Your task to perform on an android device: toggle airplane mode Image 0: 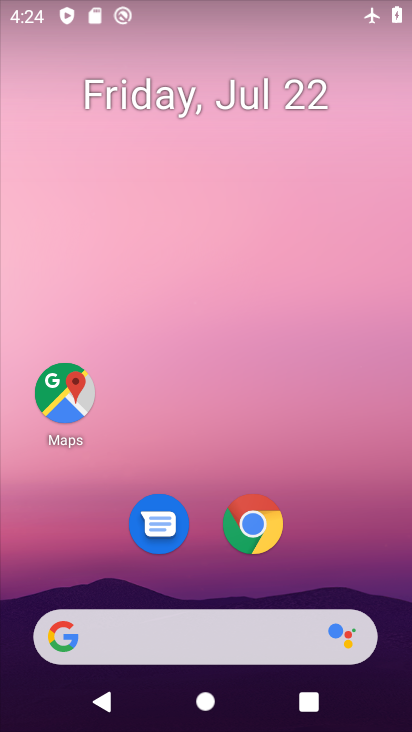
Step 0: click (254, 515)
Your task to perform on an android device: toggle airplane mode Image 1: 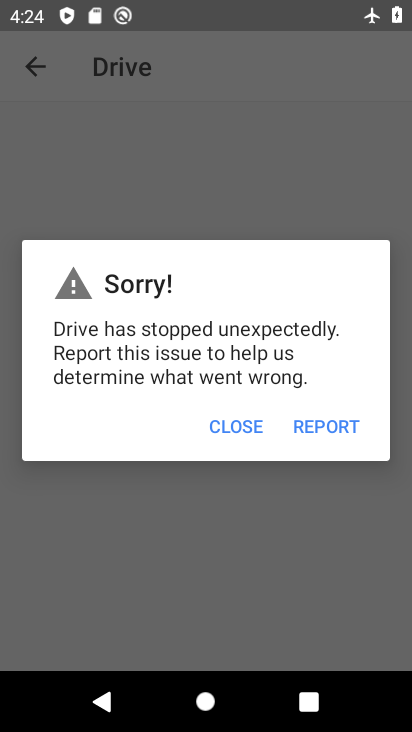
Step 1: press home button
Your task to perform on an android device: toggle airplane mode Image 2: 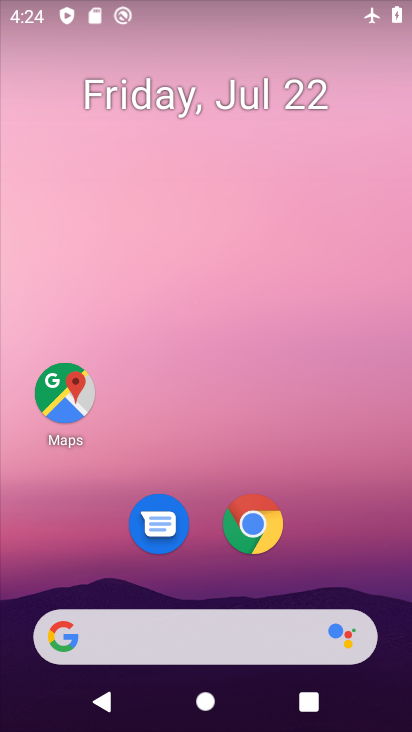
Step 2: drag from (358, 561) to (351, 71)
Your task to perform on an android device: toggle airplane mode Image 3: 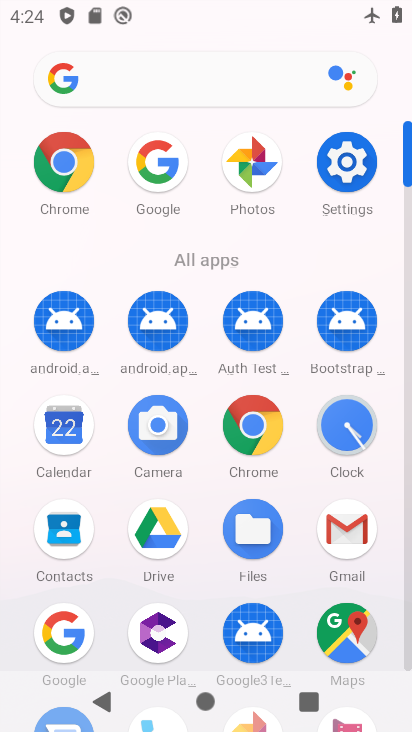
Step 3: click (342, 155)
Your task to perform on an android device: toggle airplane mode Image 4: 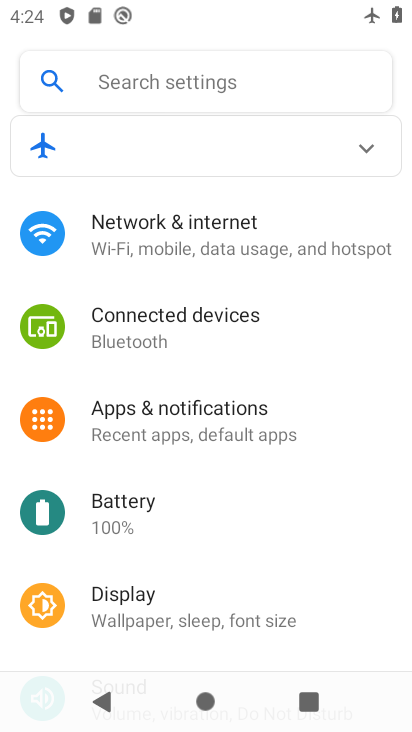
Step 4: click (264, 229)
Your task to perform on an android device: toggle airplane mode Image 5: 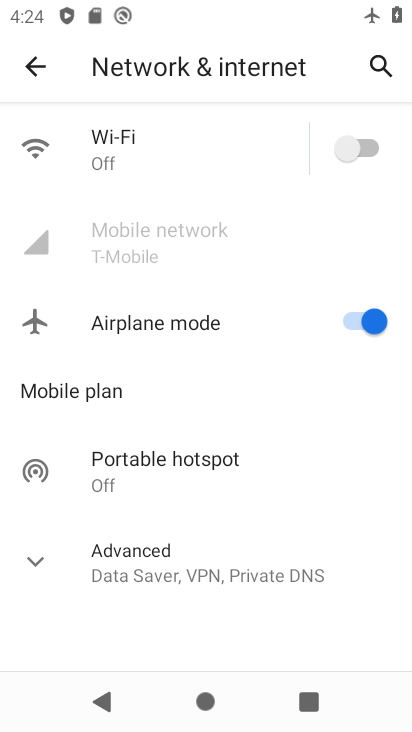
Step 5: click (357, 318)
Your task to perform on an android device: toggle airplane mode Image 6: 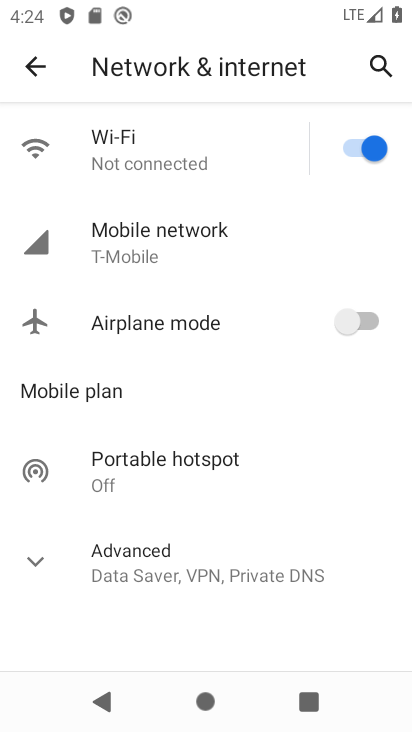
Step 6: task complete